Your task to perform on an android device: Show me popular videos on Youtube Image 0: 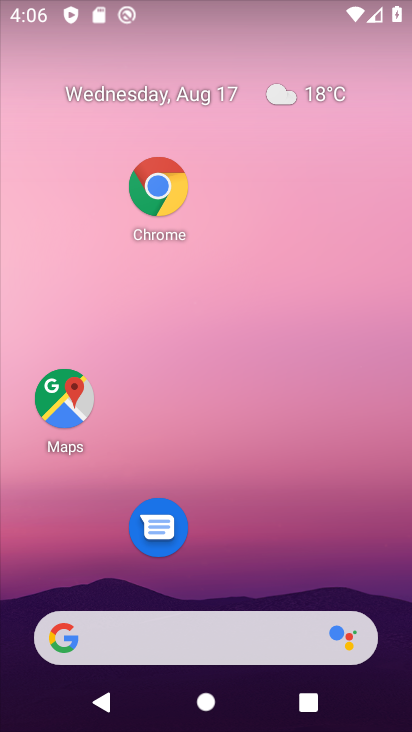
Step 0: drag from (258, 605) to (216, 172)
Your task to perform on an android device: Show me popular videos on Youtube Image 1: 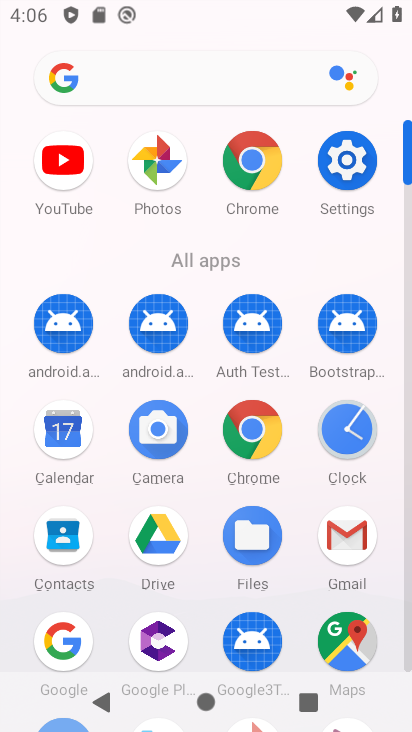
Step 1: click (60, 157)
Your task to perform on an android device: Show me popular videos on Youtube Image 2: 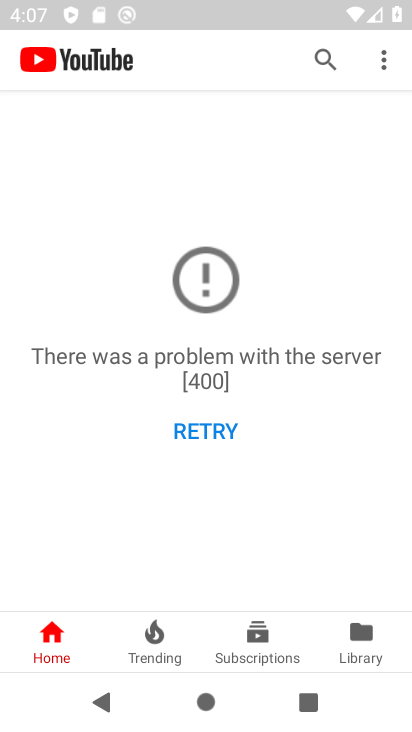
Step 2: click (159, 633)
Your task to perform on an android device: Show me popular videos on Youtube Image 3: 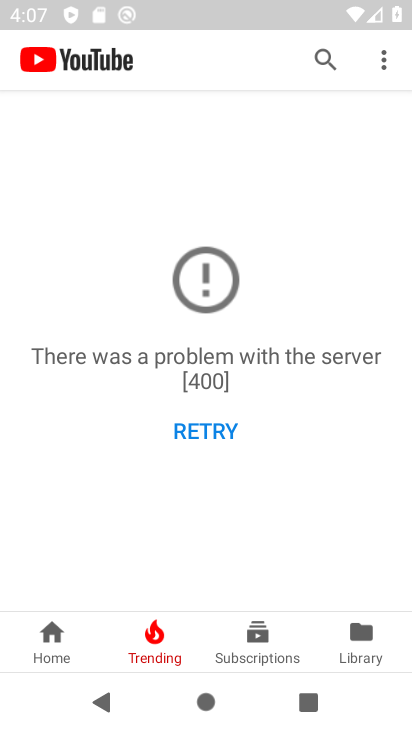
Step 3: task complete